Your task to perform on an android device: open the mobile data screen to see how much data has been used Image 0: 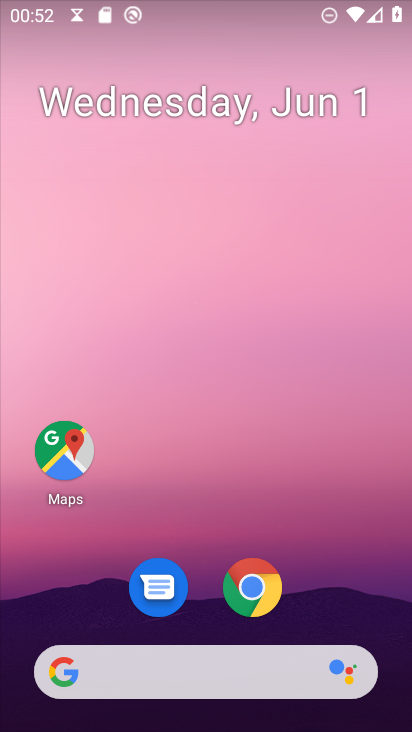
Step 0: drag from (336, 611) to (311, 3)
Your task to perform on an android device: open the mobile data screen to see how much data has been used Image 1: 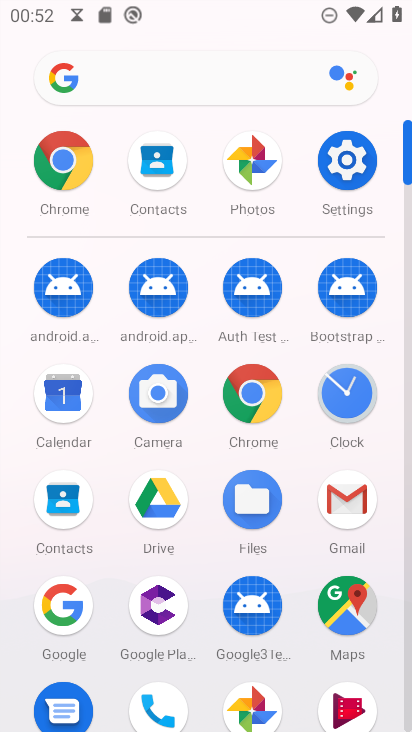
Step 1: click (335, 162)
Your task to perform on an android device: open the mobile data screen to see how much data has been used Image 2: 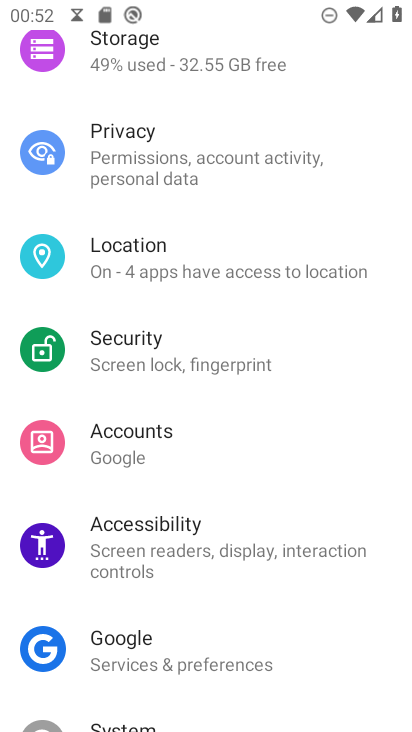
Step 2: drag from (116, 243) to (118, 629)
Your task to perform on an android device: open the mobile data screen to see how much data has been used Image 3: 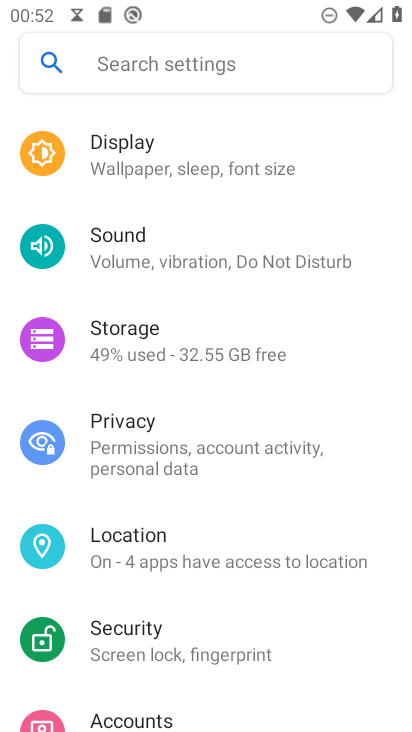
Step 3: drag from (125, 200) to (223, 569)
Your task to perform on an android device: open the mobile data screen to see how much data has been used Image 4: 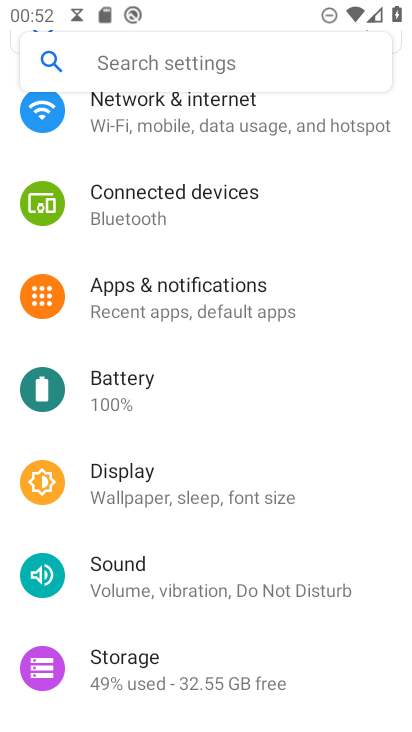
Step 4: drag from (190, 250) to (254, 563)
Your task to perform on an android device: open the mobile data screen to see how much data has been used Image 5: 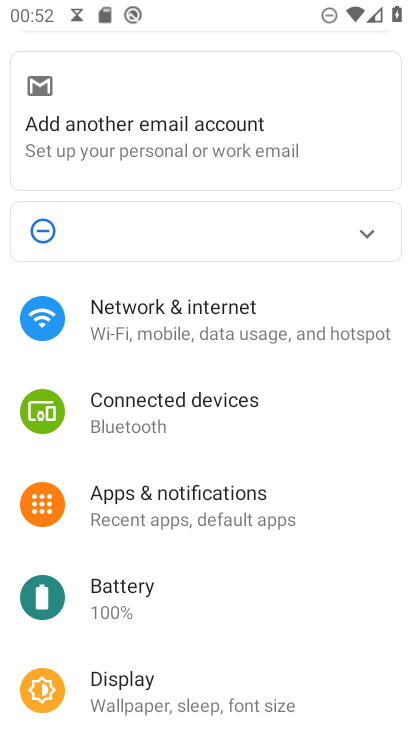
Step 5: click (189, 340)
Your task to perform on an android device: open the mobile data screen to see how much data has been used Image 6: 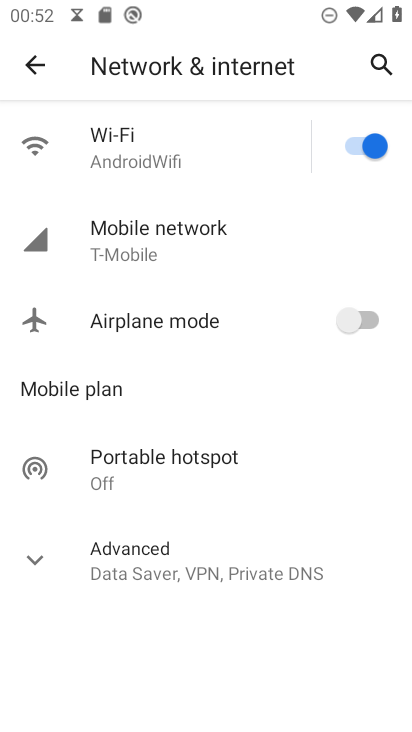
Step 6: click (117, 255)
Your task to perform on an android device: open the mobile data screen to see how much data has been used Image 7: 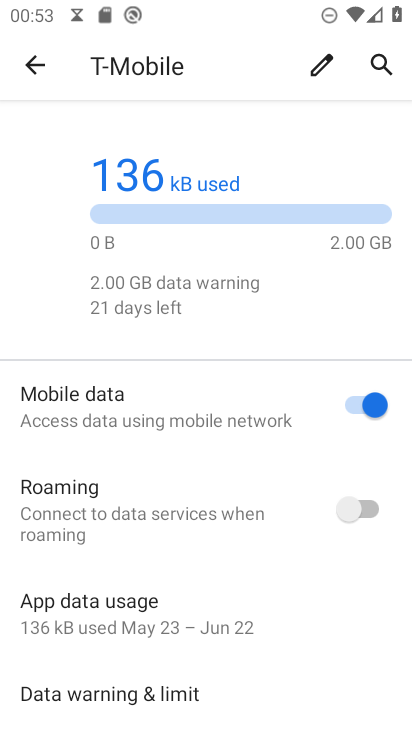
Step 7: click (167, 630)
Your task to perform on an android device: open the mobile data screen to see how much data has been used Image 8: 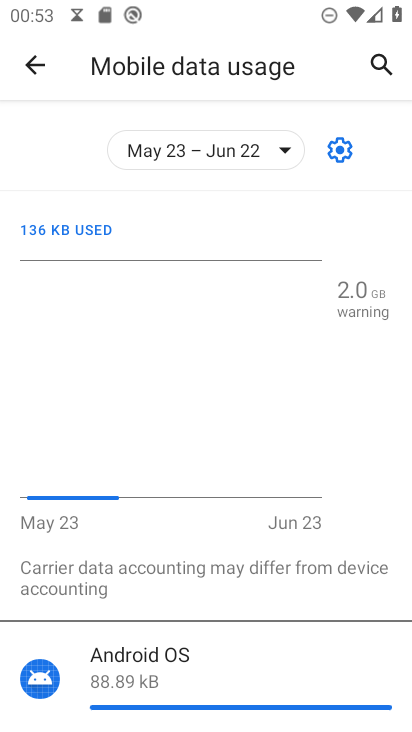
Step 8: task complete